Your task to perform on an android device: Open the calendar and show me this week's events? Image 0: 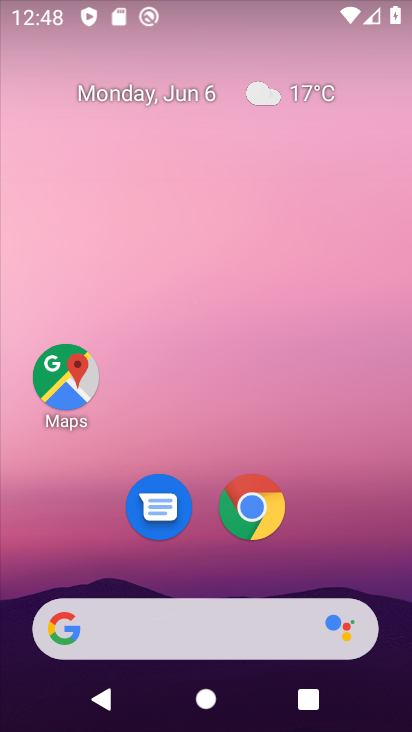
Step 0: drag from (126, 678) to (135, 355)
Your task to perform on an android device: Open the calendar and show me this week's events? Image 1: 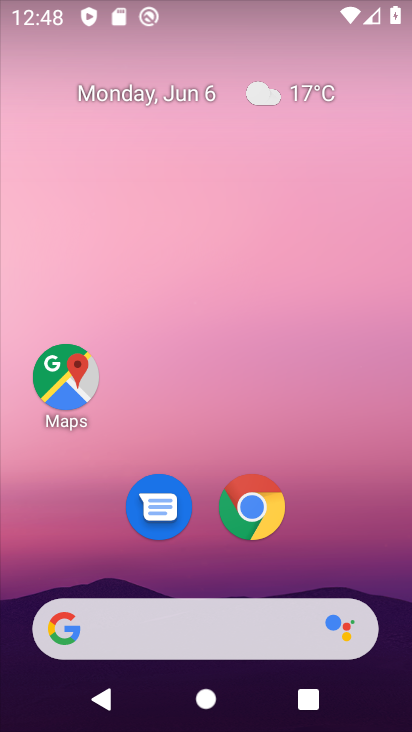
Step 1: drag from (221, 681) to (219, 151)
Your task to perform on an android device: Open the calendar and show me this week's events? Image 2: 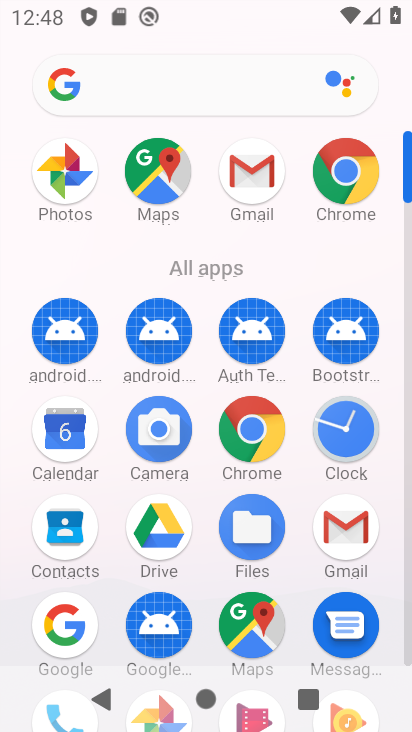
Step 2: click (68, 430)
Your task to perform on an android device: Open the calendar and show me this week's events? Image 3: 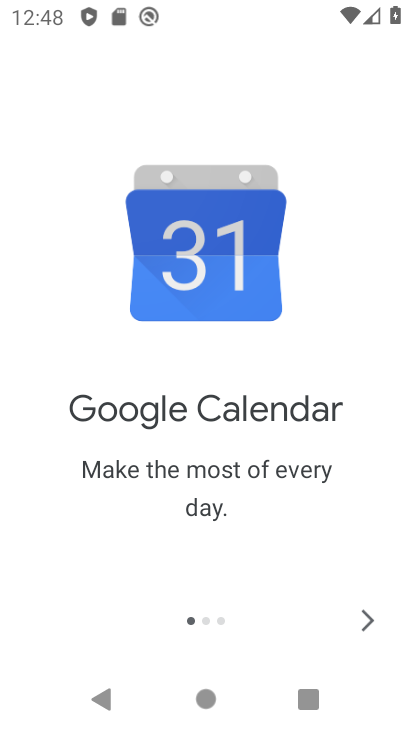
Step 3: click (371, 622)
Your task to perform on an android device: Open the calendar and show me this week's events? Image 4: 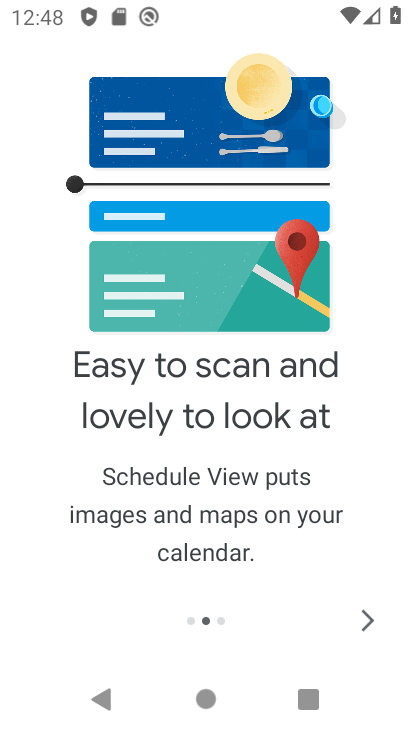
Step 4: click (368, 623)
Your task to perform on an android device: Open the calendar and show me this week's events? Image 5: 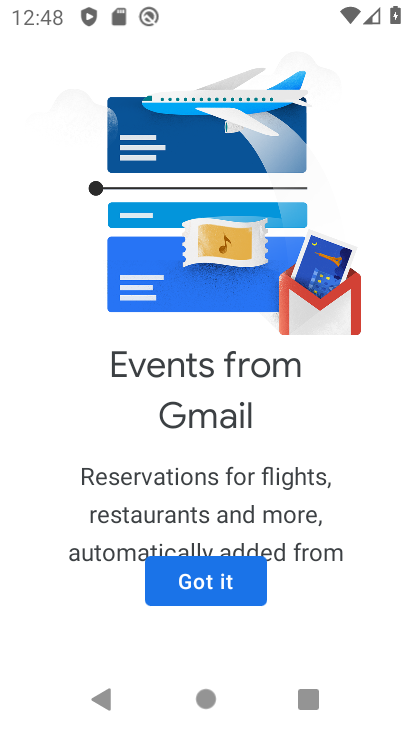
Step 5: click (262, 585)
Your task to perform on an android device: Open the calendar and show me this week's events? Image 6: 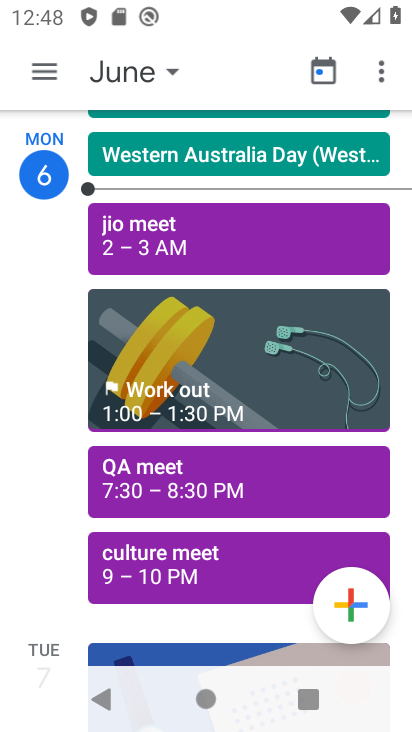
Step 6: task complete